Your task to perform on an android device: toggle improve location accuracy Image 0: 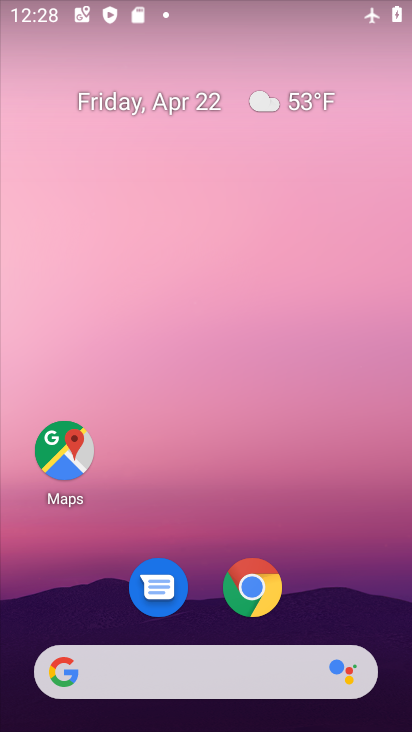
Step 0: drag from (139, 670) to (286, 96)
Your task to perform on an android device: toggle improve location accuracy Image 1: 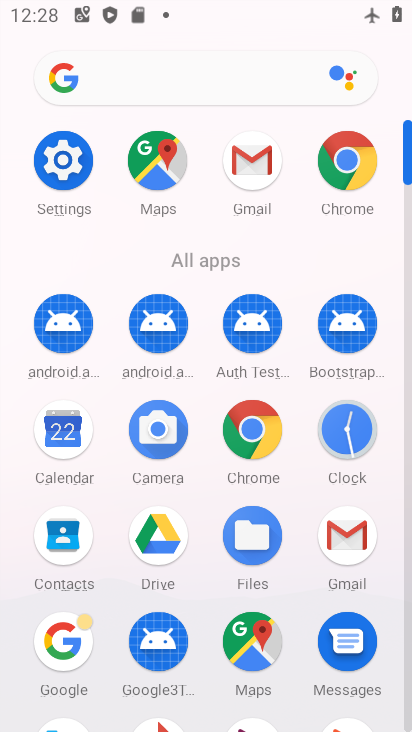
Step 1: click (64, 176)
Your task to perform on an android device: toggle improve location accuracy Image 2: 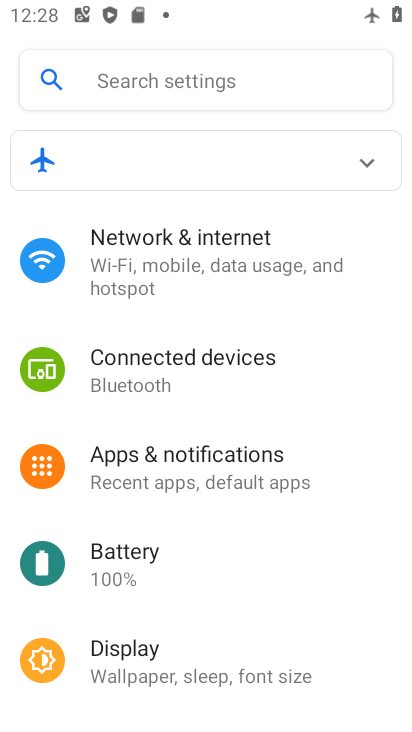
Step 2: drag from (191, 628) to (329, 154)
Your task to perform on an android device: toggle improve location accuracy Image 3: 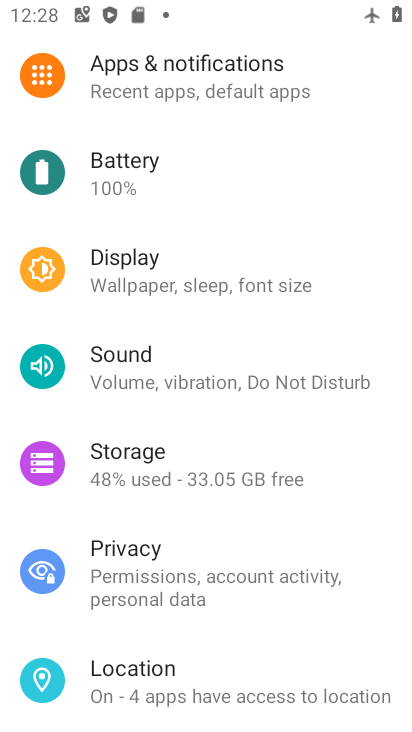
Step 3: drag from (199, 580) to (279, 243)
Your task to perform on an android device: toggle improve location accuracy Image 4: 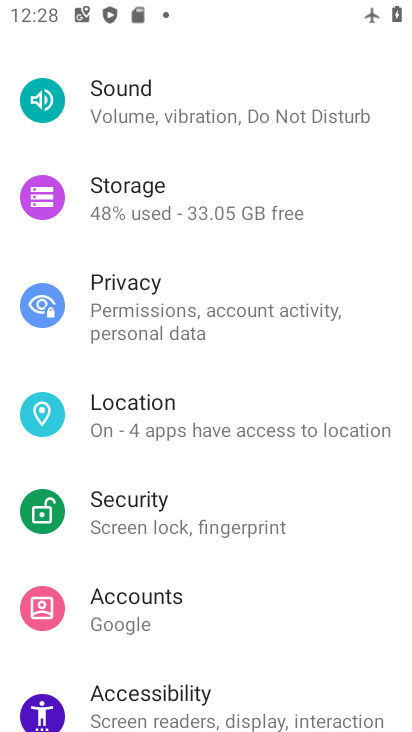
Step 4: click (201, 410)
Your task to perform on an android device: toggle improve location accuracy Image 5: 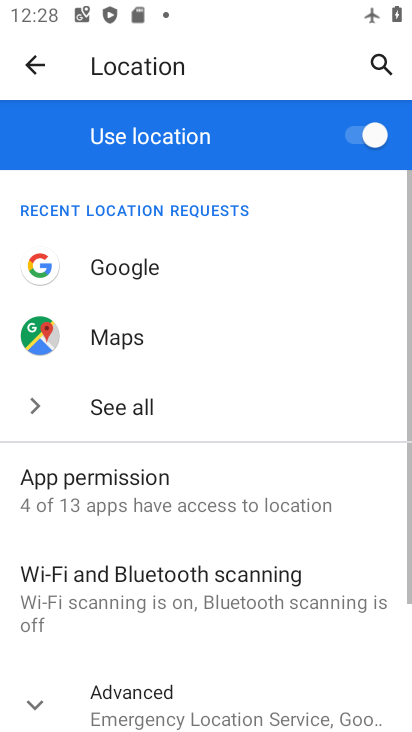
Step 5: drag from (155, 619) to (276, 277)
Your task to perform on an android device: toggle improve location accuracy Image 6: 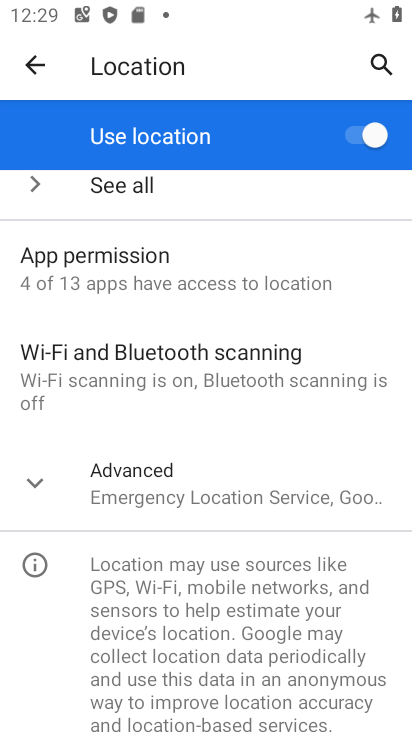
Step 6: click (166, 488)
Your task to perform on an android device: toggle improve location accuracy Image 7: 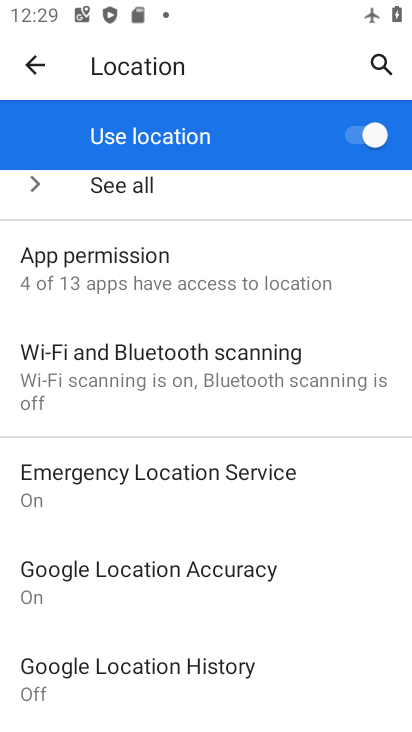
Step 7: click (160, 573)
Your task to perform on an android device: toggle improve location accuracy Image 8: 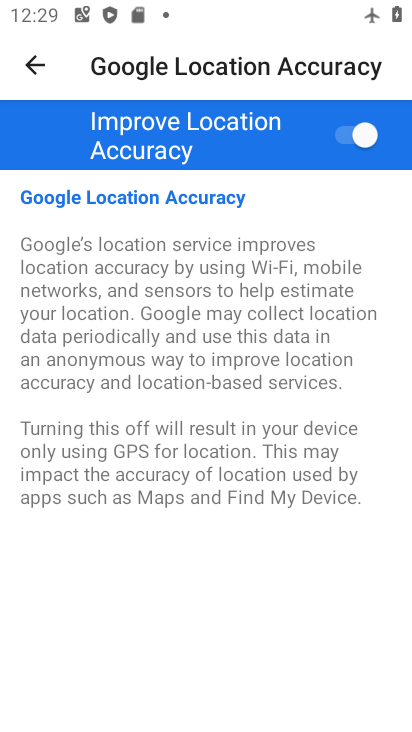
Step 8: click (349, 136)
Your task to perform on an android device: toggle improve location accuracy Image 9: 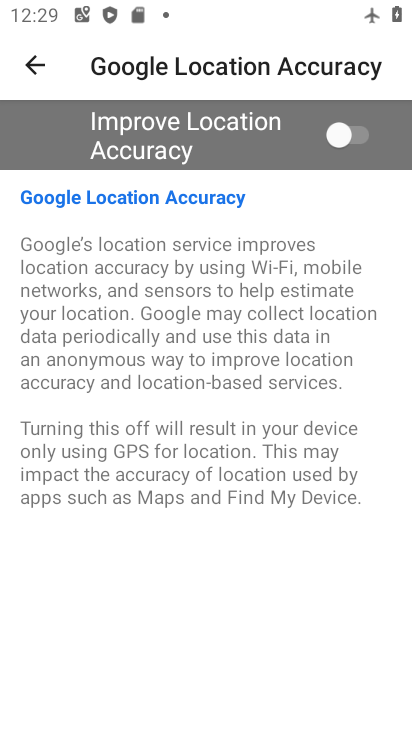
Step 9: task complete